Your task to perform on an android device: Toggle the flashlight Image 0: 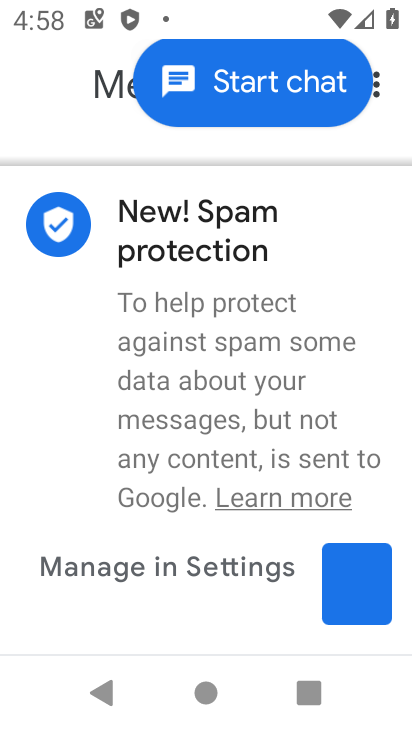
Step 0: press home button
Your task to perform on an android device: Toggle the flashlight Image 1: 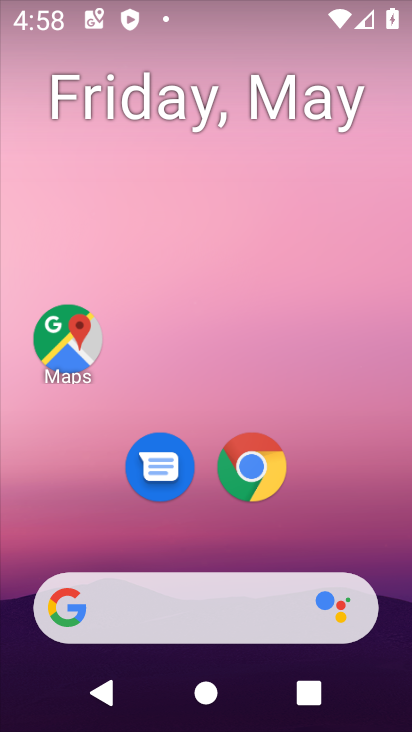
Step 1: drag from (306, 535) to (264, 191)
Your task to perform on an android device: Toggle the flashlight Image 2: 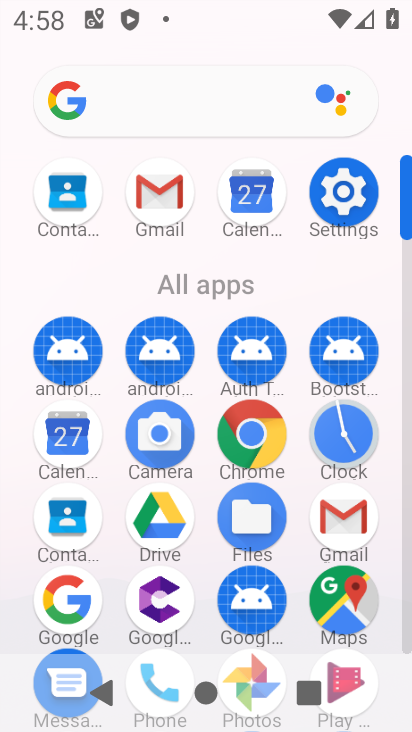
Step 2: click (345, 204)
Your task to perform on an android device: Toggle the flashlight Image 3: 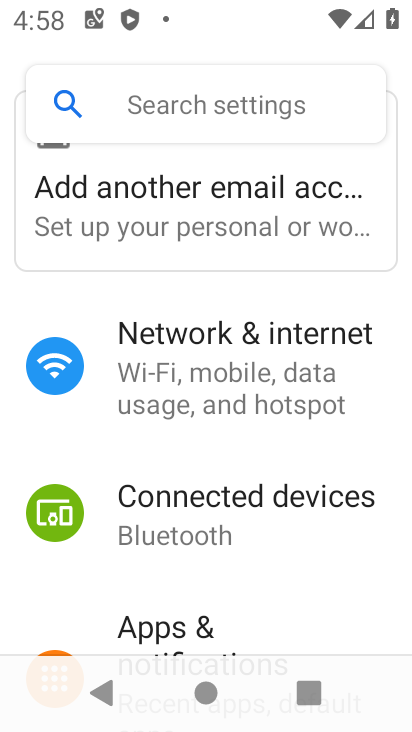
Step 3: drag from (266, 571) to (220, 196)
Your task to perform on an android device: Toggle the flashlight Image 4: 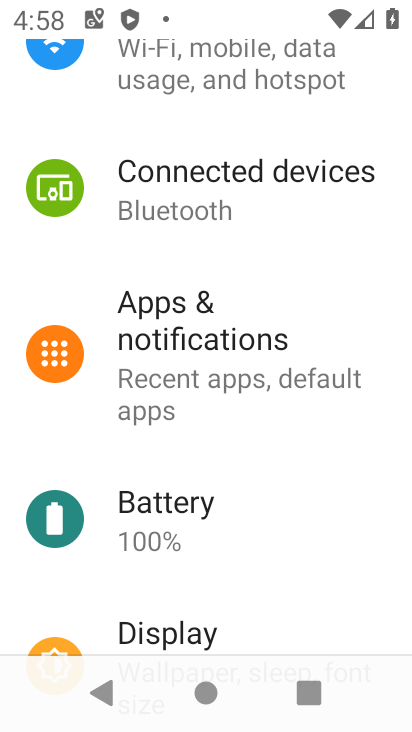
Step 4: drag from (219, 506) to (236, 225)
Your task to perform on an android device: Toggle the flashlight Image 5: 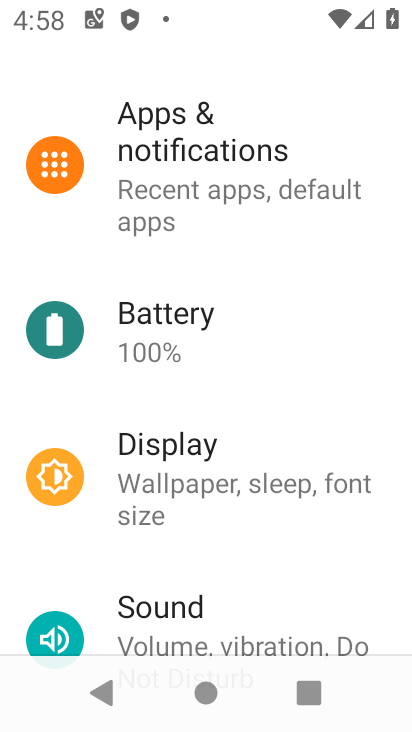
Step 5: click (144, 450)
Your task to perform on an android device: Toggle the flashlight Image 6: 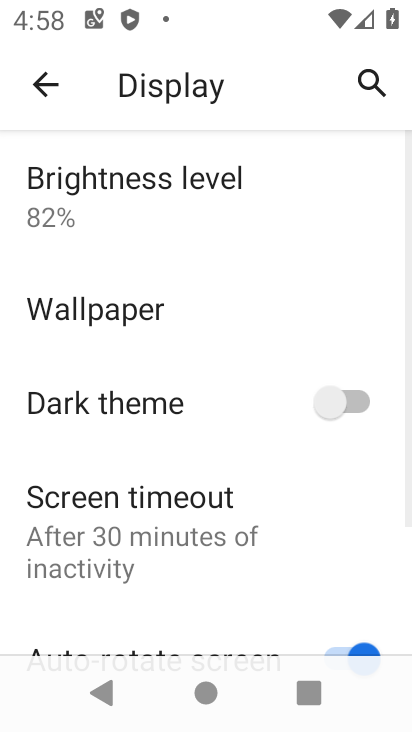
Step 6: task complete